Your task to perform on an android device: open a new tab in the chrome app Image 0: 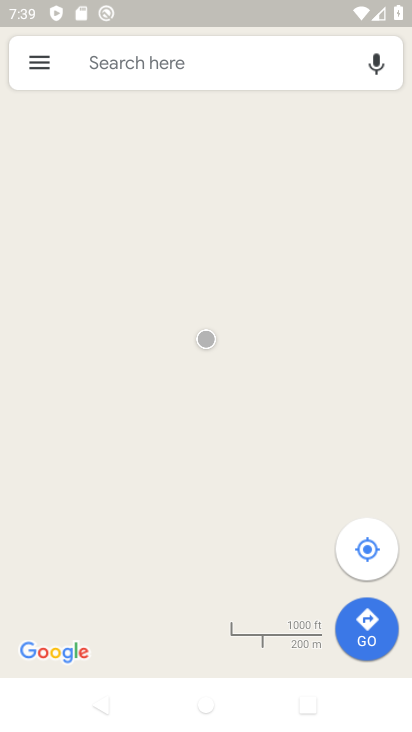
Step 0: press home button
Your task to perform on an android device: open a new tab in the chrome app Image 1: 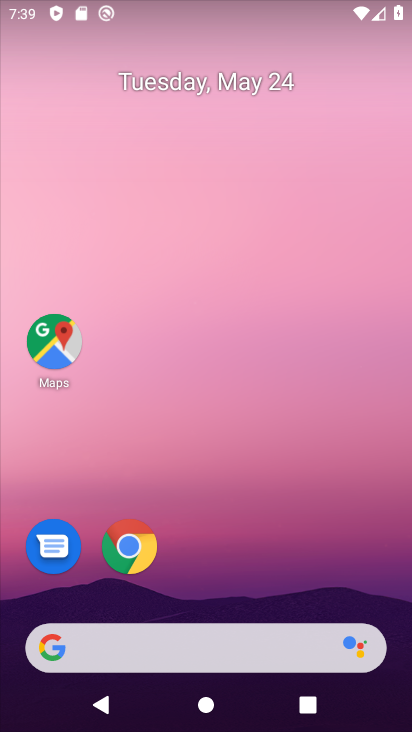
Step 1: click (140, 535)
Your task to perform on an android device: open a new tab in the chrome app Image 2: 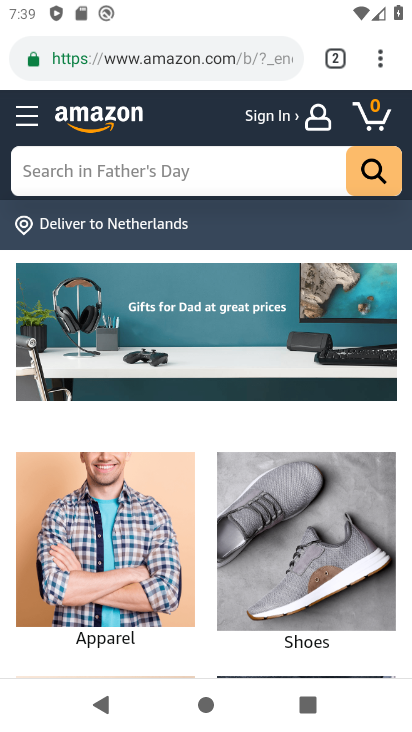
Step 2: click (380, 64)
Your task to perform on an android device: open a new tab in the chrome app Image 3: 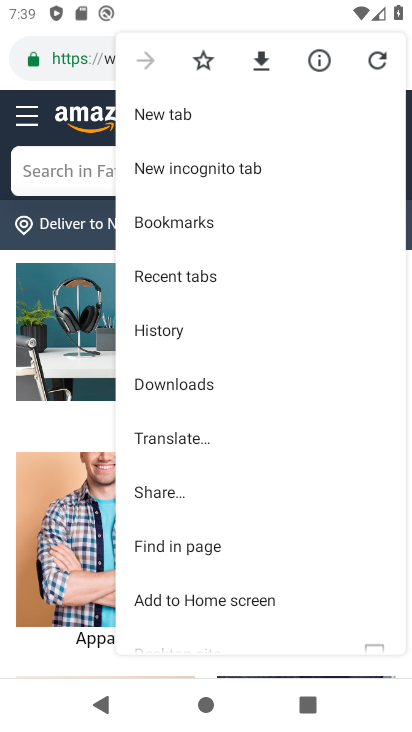
Step 3: click (333, 111)
Your task to perform on an android device: open a new tab in the chrome app Image 4: 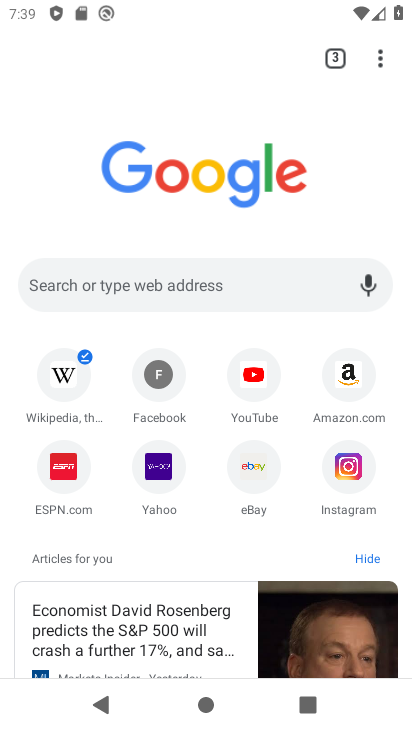
Step 4: task complete